Your task to perform on an android device: Go to eBay Image 0: 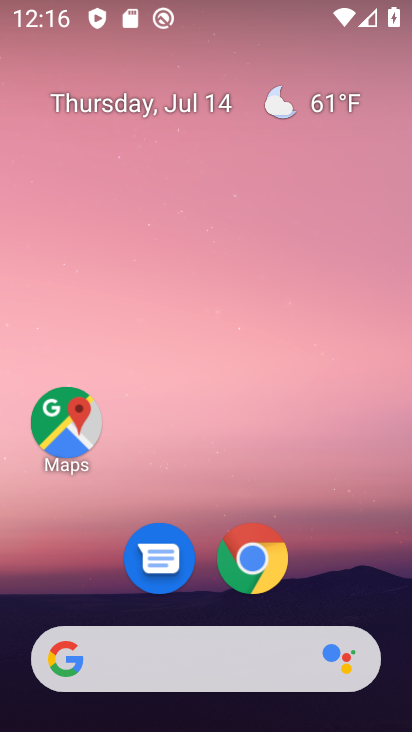
Step 0: click (262, 559)
Your task to perform on an android device: Go to eBay Image 1: 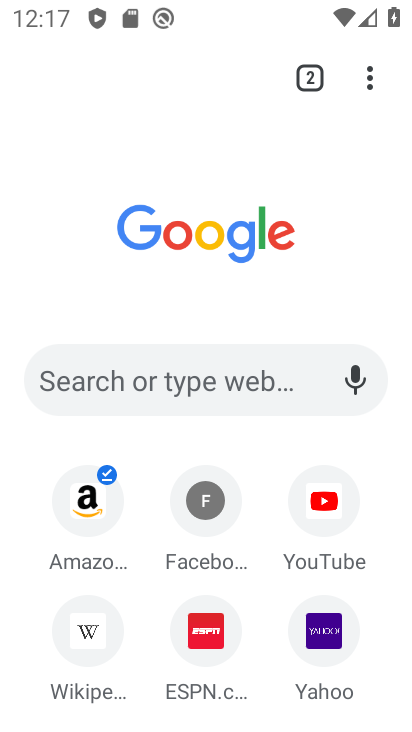
Step 1: drag from (220, 588) to (290, 44)
Your task to perform on an android device: Go to eBay Image 2: 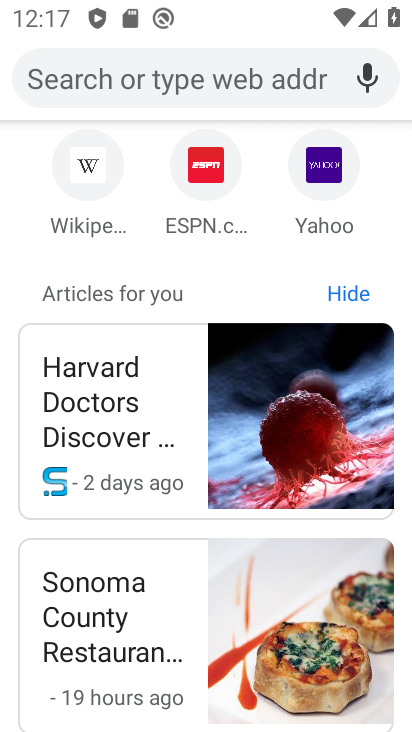
Step 2: drag from (188, 236) to (188, 694)
Your task to perform on an android device: Go to eBay Image 3: 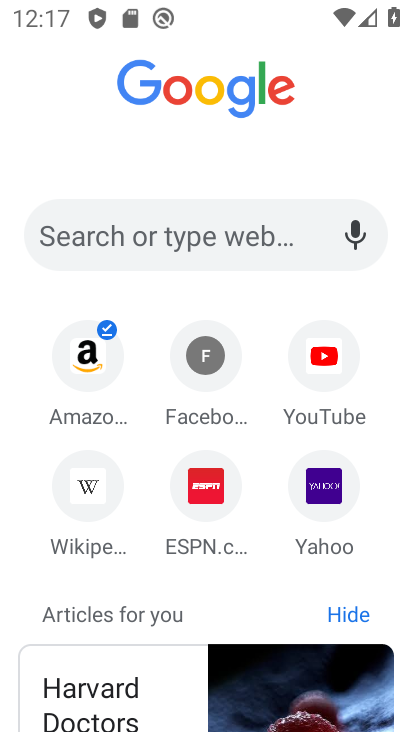
Step 3: click (120, 235)
Your task to perform on an android device: Go to eBay Image 4: 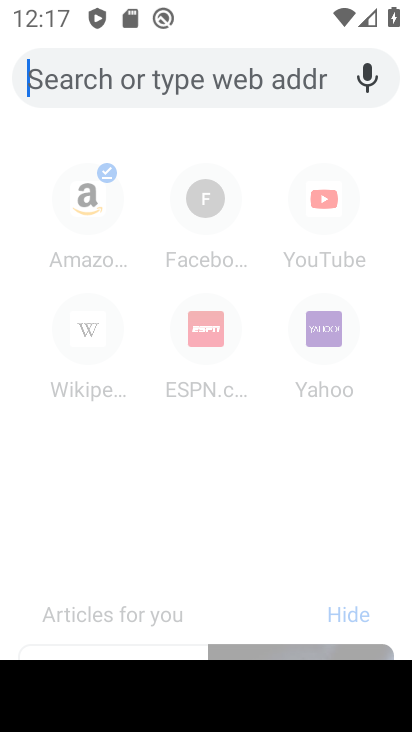
Step 4: type "ebay"
Your task to perform on an android device: Go to eBay Image 5: 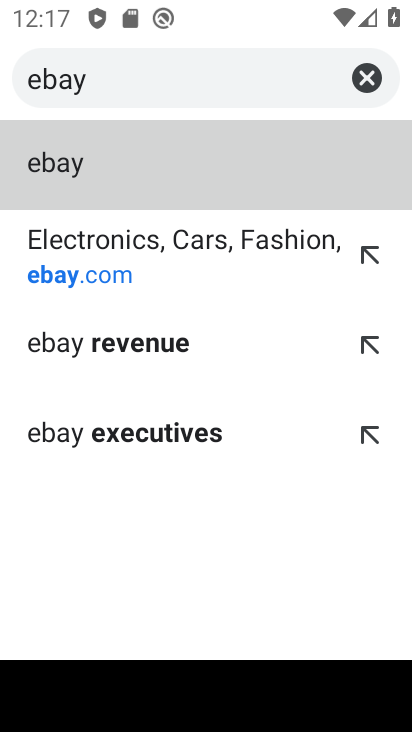
Step 5: click (120, 263)
Your task to perform on an android device: Go to eBay Image 6: 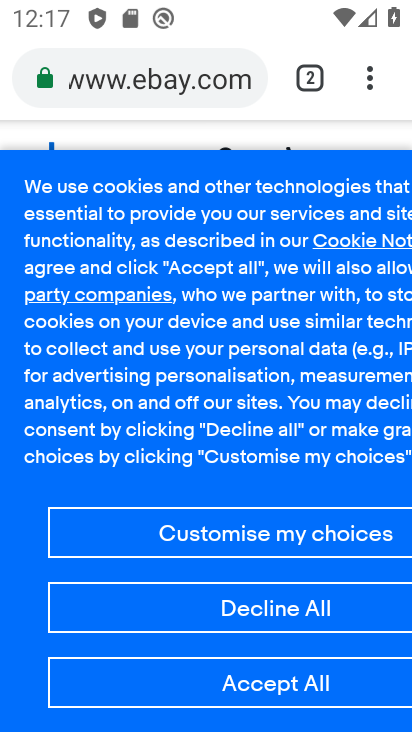
Step 6: task complete